Your task to perform on an android device: Go to Android settings Image 0: 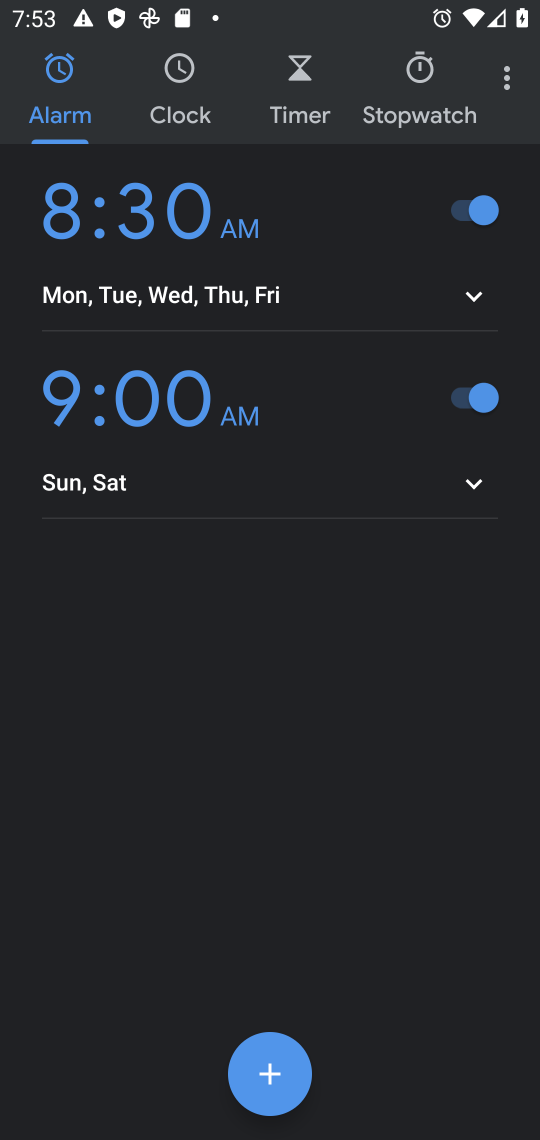
Step 0: press home button
Your task to perform on an android device: Go to Android settings Image 1: 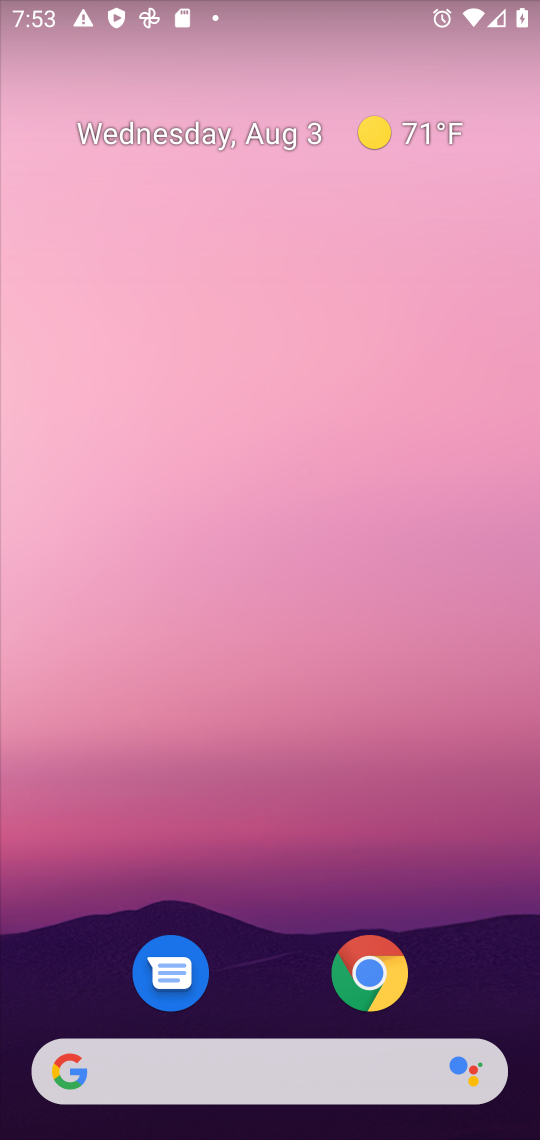
Step 1: drag from (241, 936) to (270, 90)
Your task to perform on an android device: Go to Android settings Image 2: 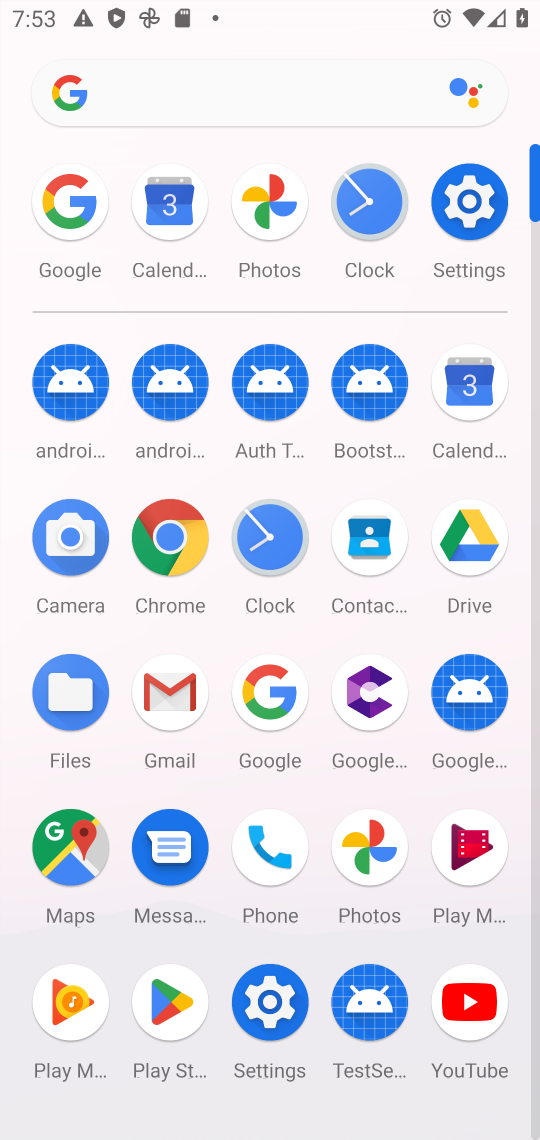
Step 2: click (460, 216)
Your task to perform on an android device: Go to Android settings Image 3: 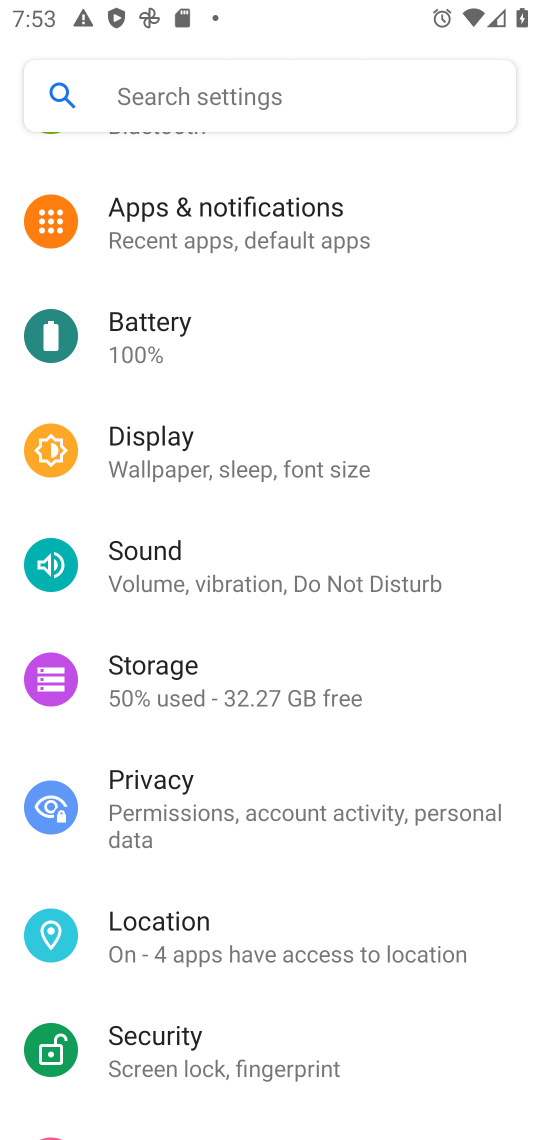
Step 3: drag from (192, 752) to (249, 266)
Your task to perform on an android device: Go to Android settings Image 4: 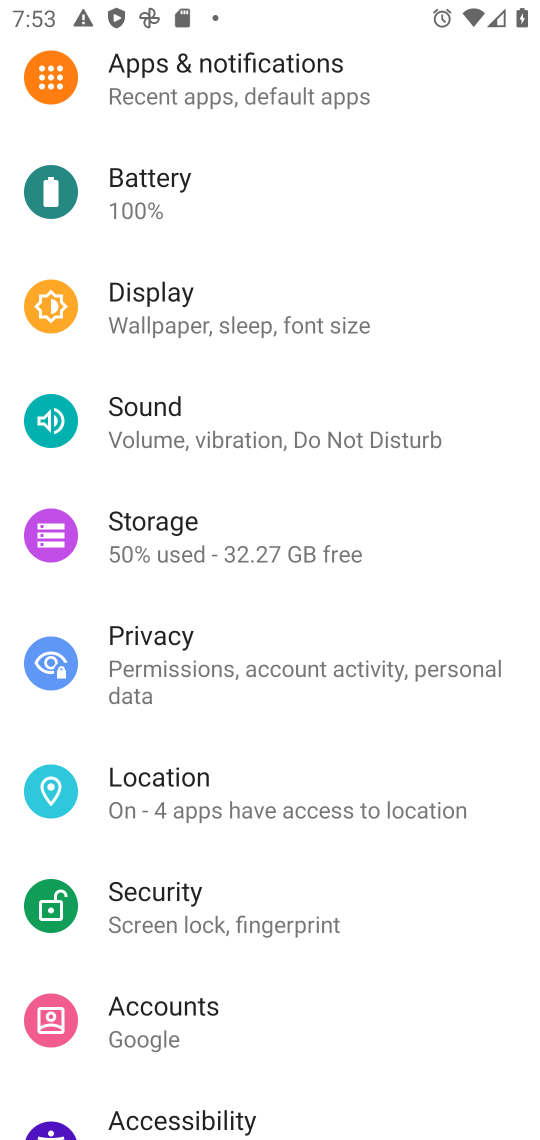
Step 4: drag from (204, 1022) to (347, 263)
Your task to perform on an android device: Go to Android settings Image 5: 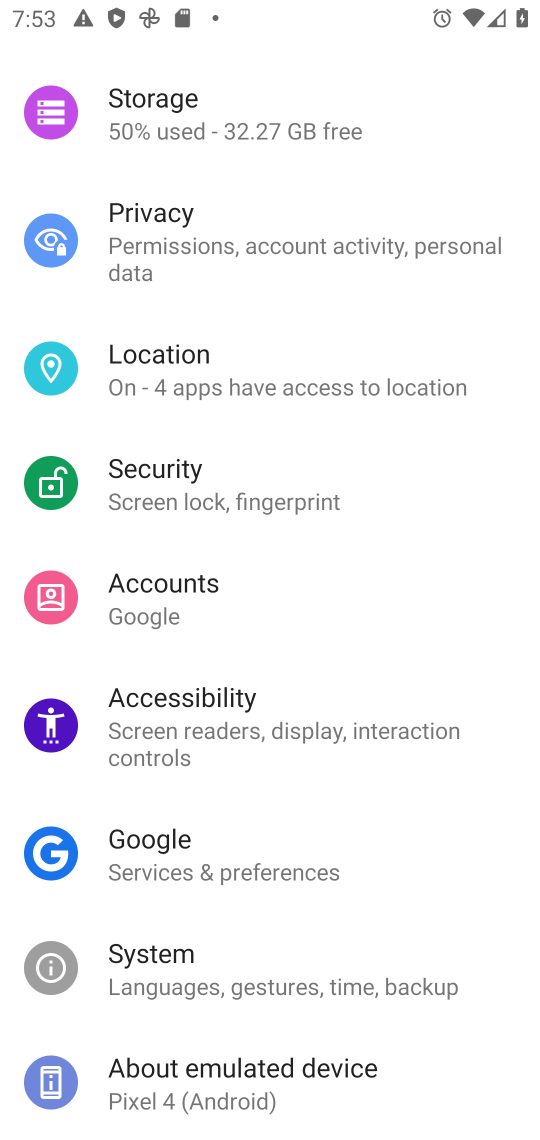
Step 5: click (219, 1055)
Your task to perform on an android device: Go to Android settings Image 6: 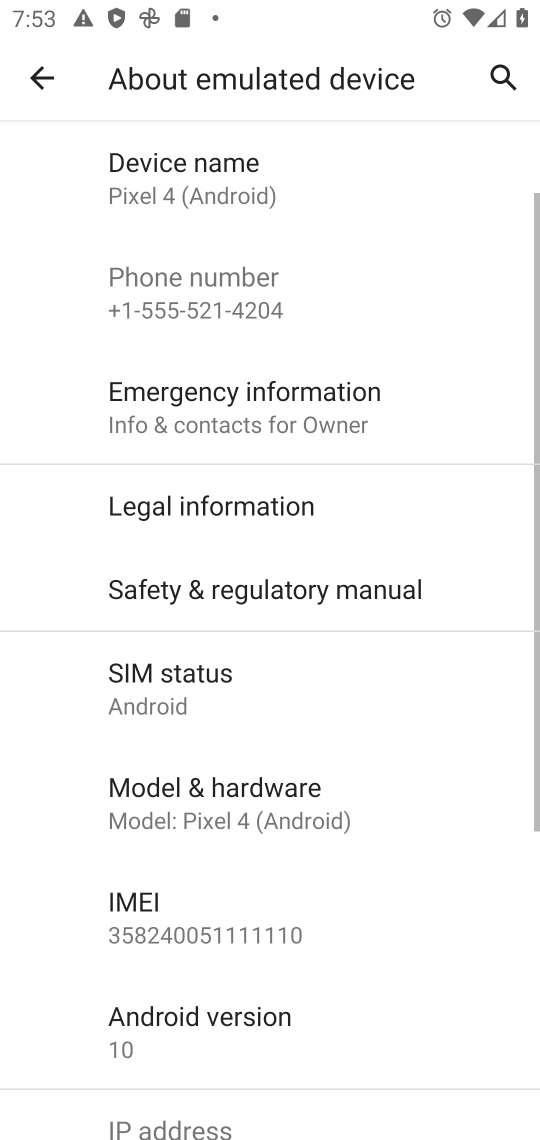
Step 6: drag from (190, 708) to (219, 323)
Your task to perform on an android device: Go to Android settings Image 7: 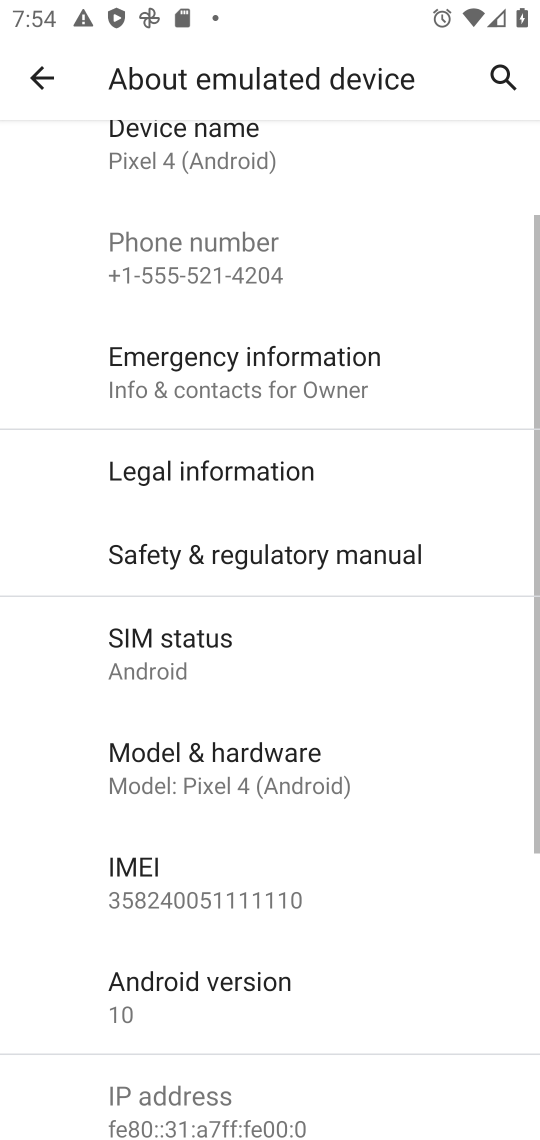
Step 7: click (166, 1040)
Your task to perform on an android device: Go to Android settings Image 8: 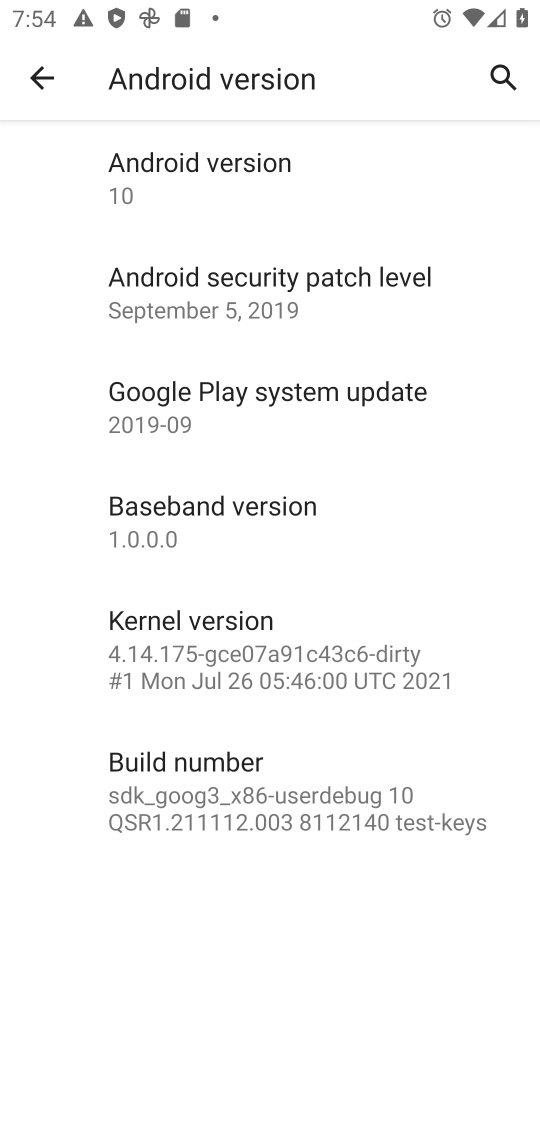
Step 8: task complete